Your task to perform on an android device: Is it going to rain this weekend? Image 0: 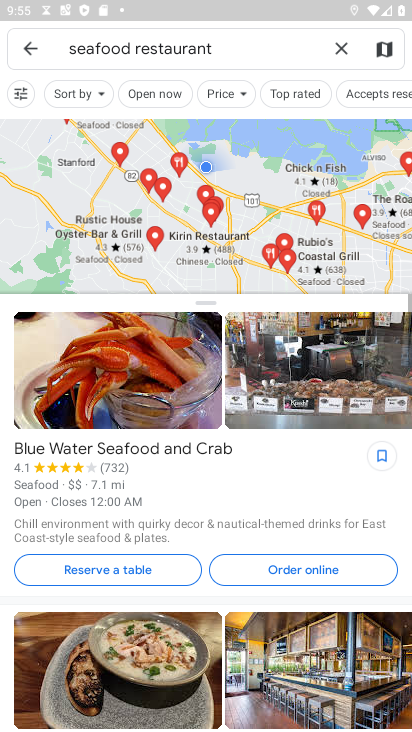
Step 0: press home button
Your task to perform on an android device: Is it going to rain this weekend? Image 1: 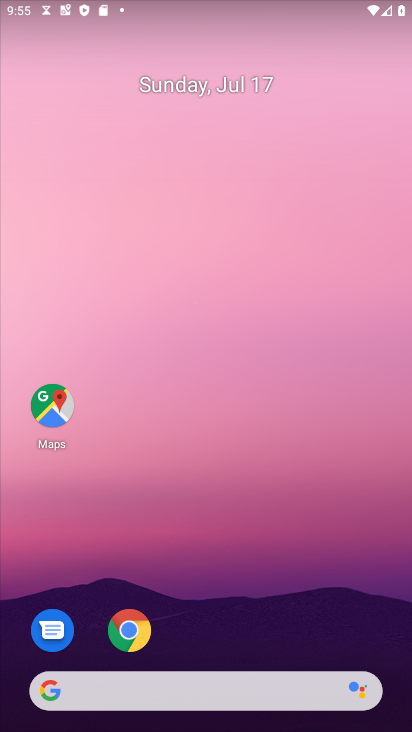
Step 1: drag from (255, 636) to (410, 465)
Your task to perform on an android device: Is it going to rain this weekend? Image 2: 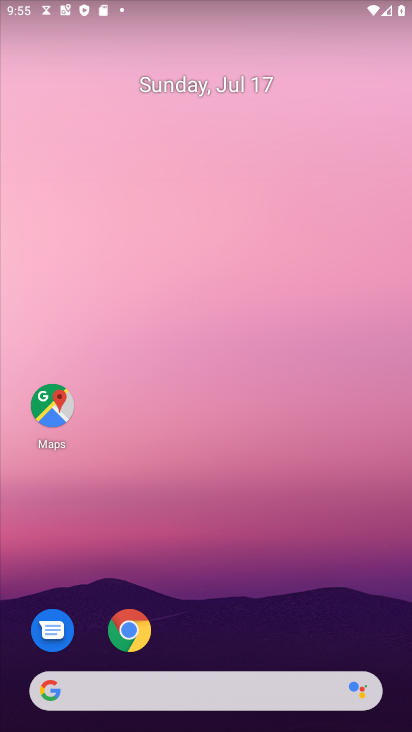
Step 2: drag from (298, 699) to (321, 36)
Your task to perform on an android device: Is it going to rain this weekend? Image 3: 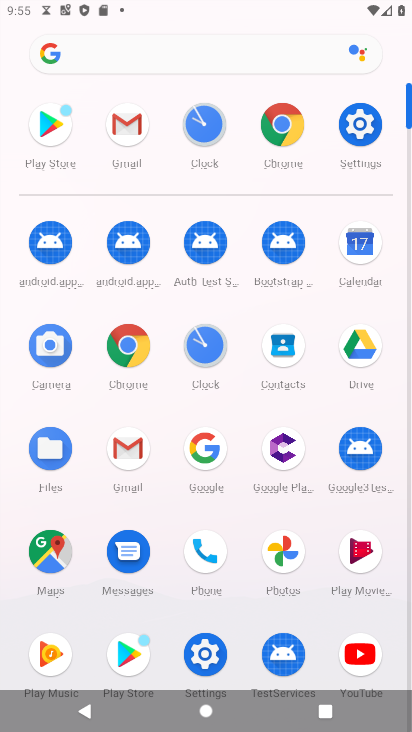
Step 3: click (365, 242)
Your task to perform on an android device: Is it going to rain this weekend? Image 4: 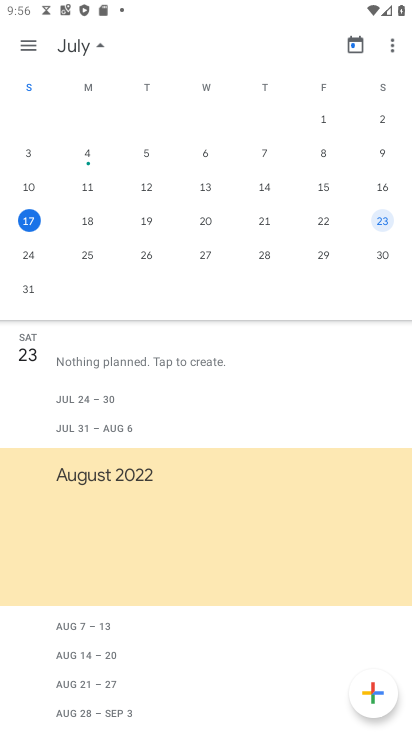
Step 4: click (385, 220)
Your task to perform on an android device: Is it going to rain this weekend? Image 5: 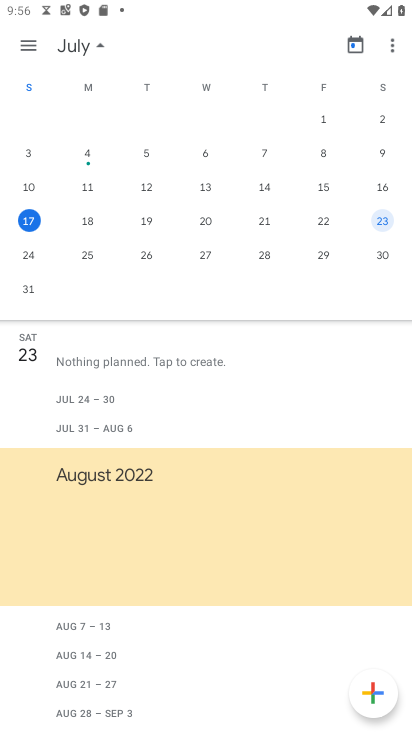
Step 5: task complete